Your task to perform on an android device: turn on translation in the chrome app Image 0: 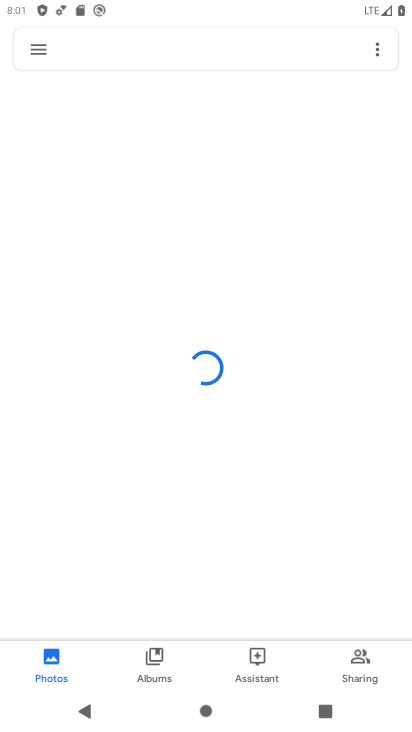
Step 0: press home button
Your task to perform on an android device: turn on translation in the chrome app Image 1: 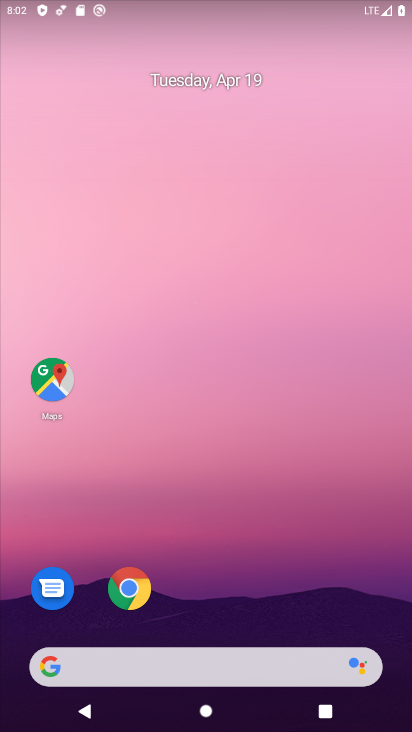
Step 1: click (130, 593)
Your task to perform on an android device: turn on translation in the chrome app Image 2: 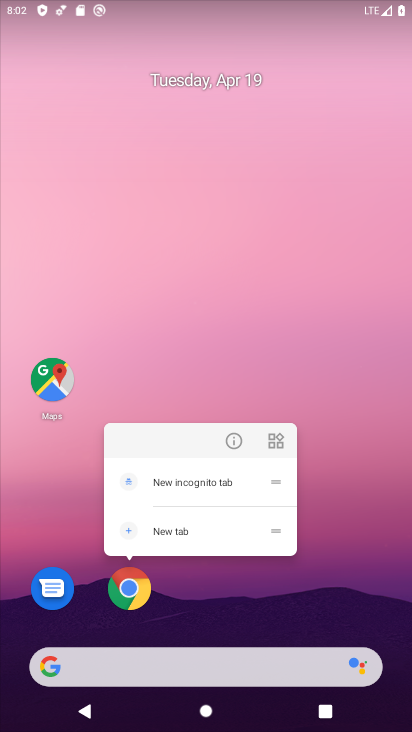
Step 2: click (180, 597)
Your task to perform on an android device: turn on translation in the chrome app Image 3: 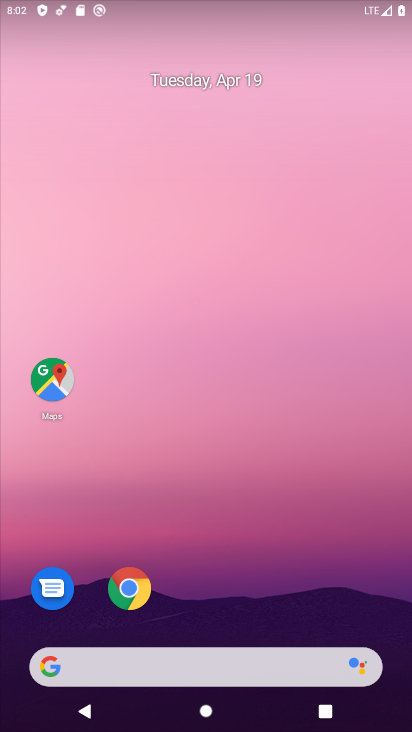
Step 3: click (126, 581)
Your task to perform on an android device: turn on translation in the chrome app Image 4: 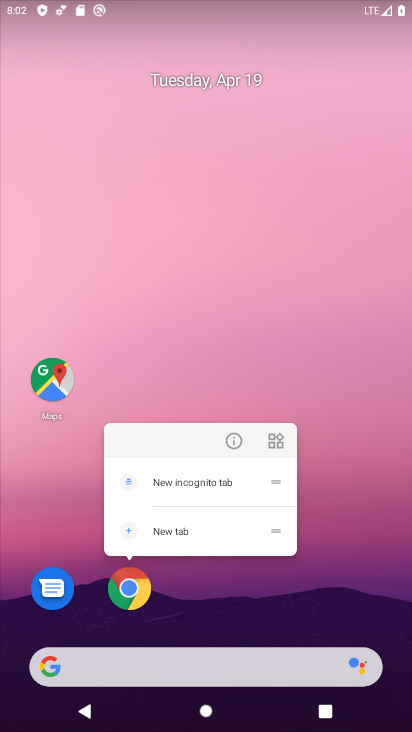
Step 4: click (211, 591)
Your task to perform on an android device: turn on translation in the chrome app Image 5: 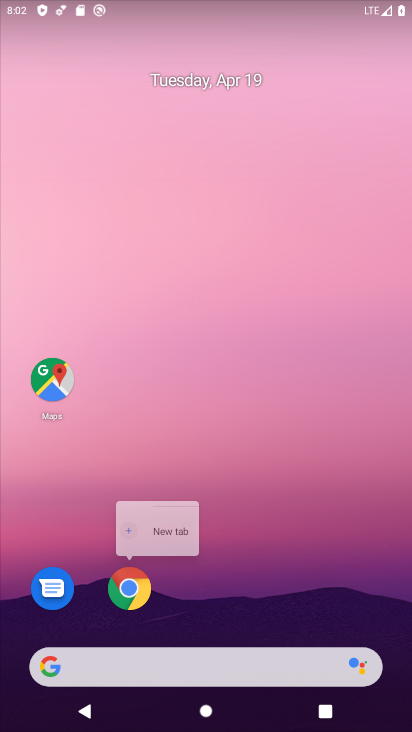
Step 5: click (362, 588)
Your task to perform on an android device: turn on translation in the chrome app Image 6: 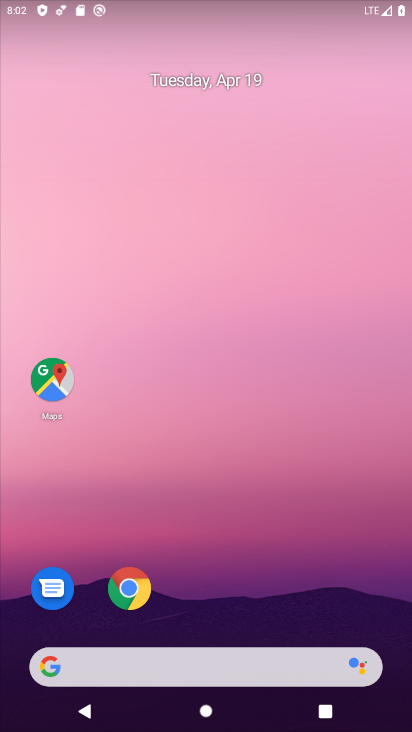
Step 6: click (131, 583)
Your task to perform on an android device: turn on translation in the chrome app Image 7: 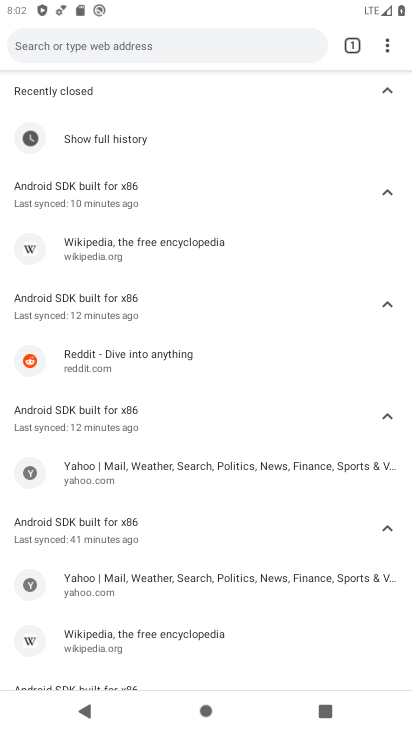
Step 7: click (385, 41)
Your task to perform on an android device: turn on translation in the chrome app Image 8: 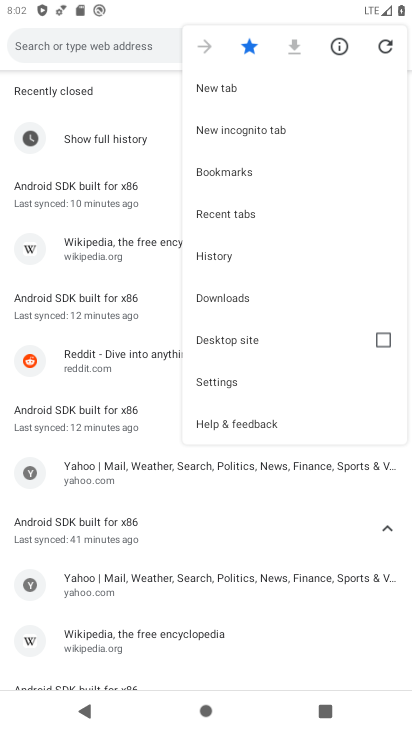
Step 8: click (241, 380)
Your task to perform on an android device: turn on translation in the chrome app Image 9: 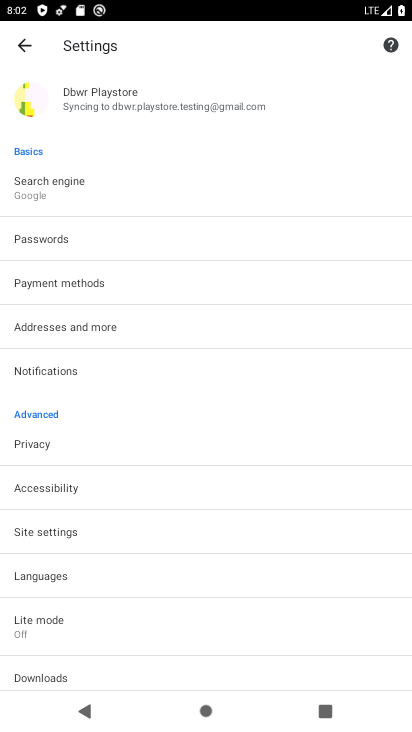
Step 9: click (69, 571)
Your task to perform on an android device: turn on translation in the chrome app Image 10: 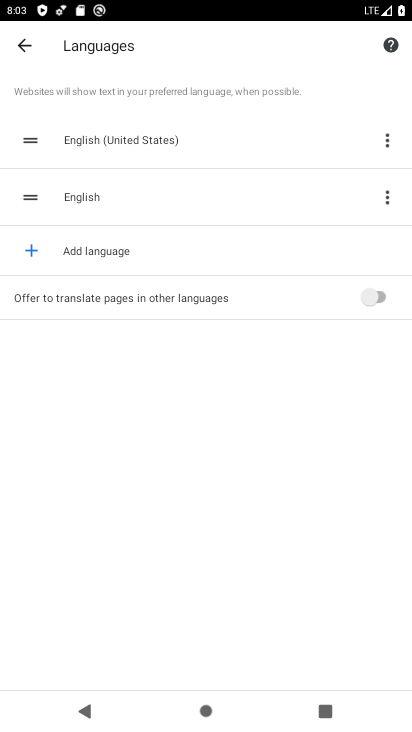
Step 10: click (380, 294)
Your task to perform on an android device: turn on translation in the chrome app Image 11: 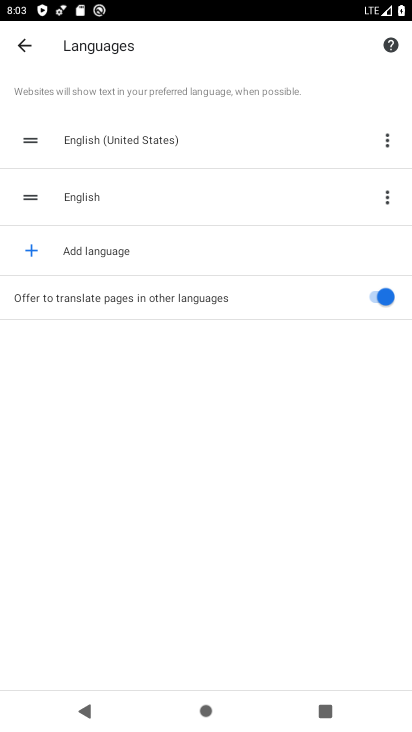
Step 11: task complete